Your task to perform on an android device: Open Android settings Image 0: 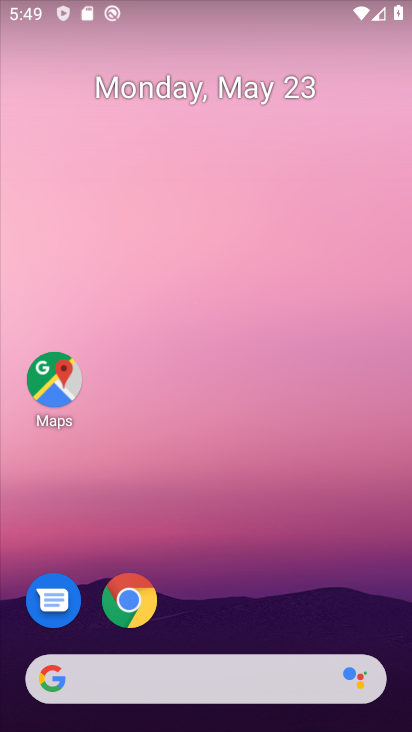
Step 0: drag from (114, 465) to (296, 172)
Your task to perform on an android device: Open Android settings Image 1: 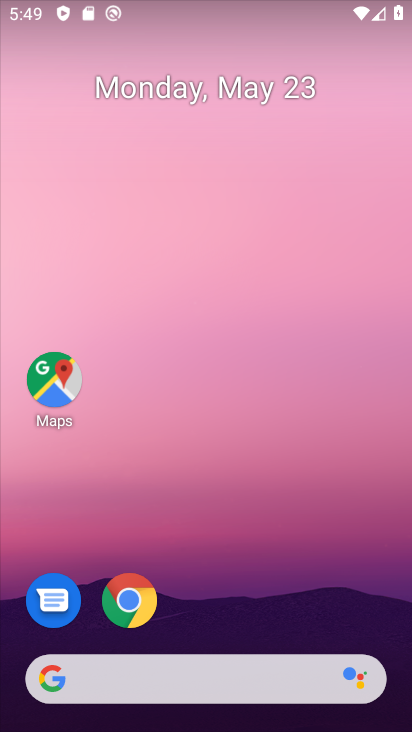
Step 1: drag from (7, 503) to (164, 251)
Your task to perform on an android device: Open Android settings Image 2: 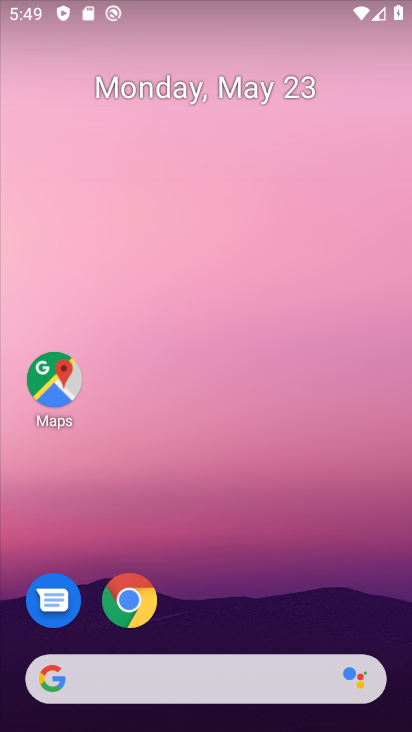
Step 2: drag from (44, 547) to (351, 119)
Your task to perform on an android device: Open Android settings Image 3: 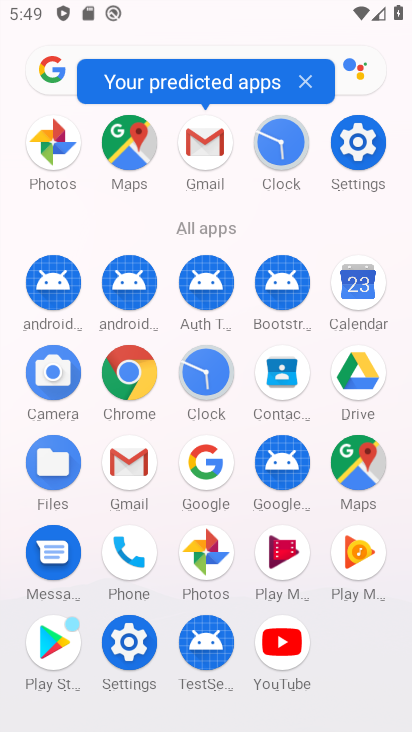
Step 3: click (356, 136)
Your task to perform on an android device: Open Android settings Image 4: 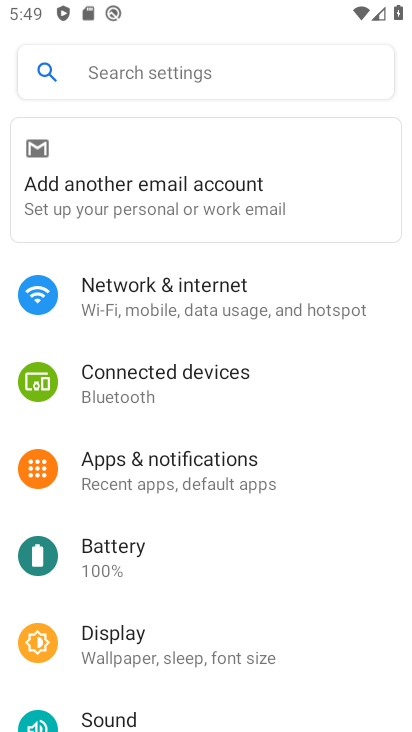
Step 4: drag from (42, 713) to (249, 260)
Your task to perform on an android device: Open Android settings Image 5: 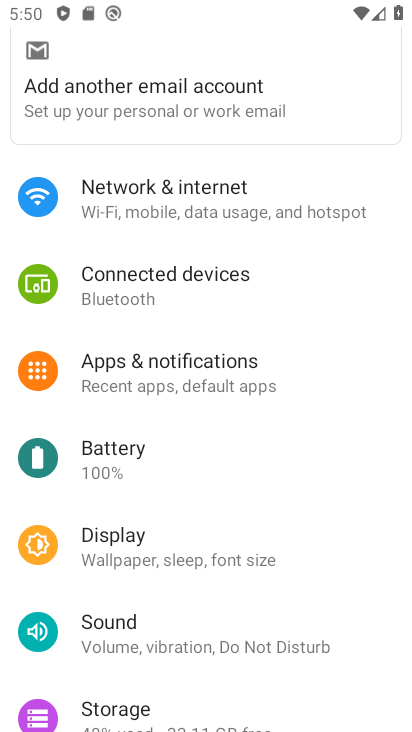
Step 5: drag from (7, 633) to (217, 207)
Your task to perform on an android device: Open Android settings Image 6: 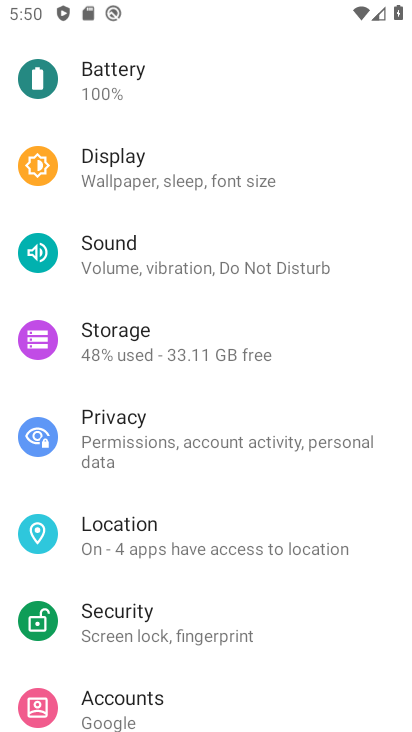
Step 6: drag from (93, 644) to (259, 208)
Your task to perform on an android device: Open Android settings Image 7: 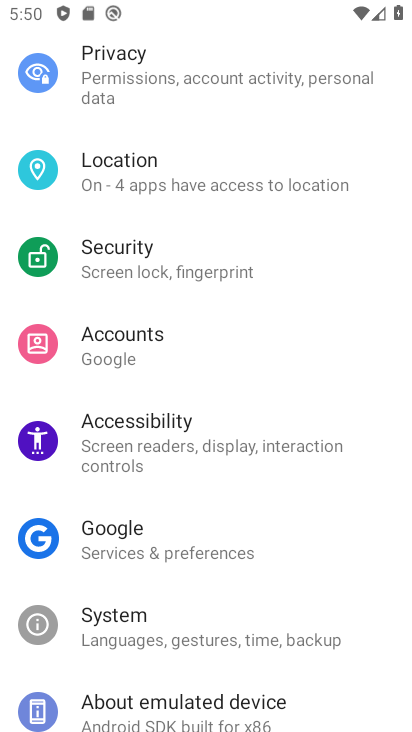
Step 7: drag from (109, 700) to (252, 256)
Your task to perform on an android device: Open Android settings Image 8: 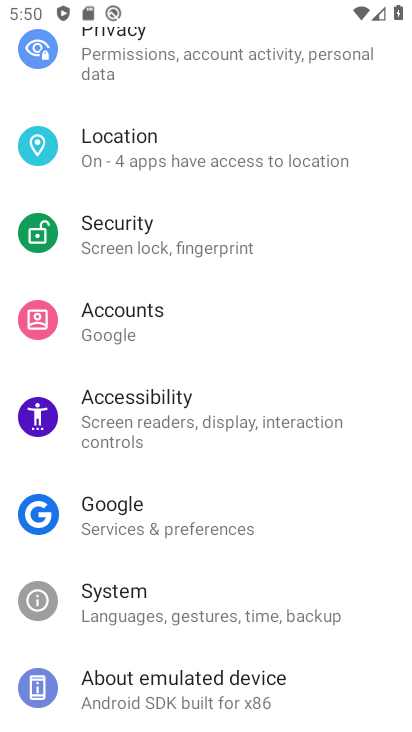
Step 8: click (142, 663)
Your task to perform on an android device: Open Android settings Image 9: 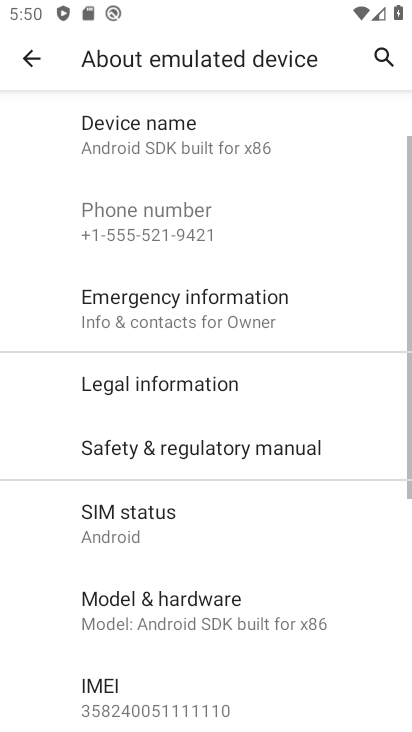
Step 9: drag from (164, 667) to (314, 205)
Your task to perform on an android device: Open Android settings Image 10: 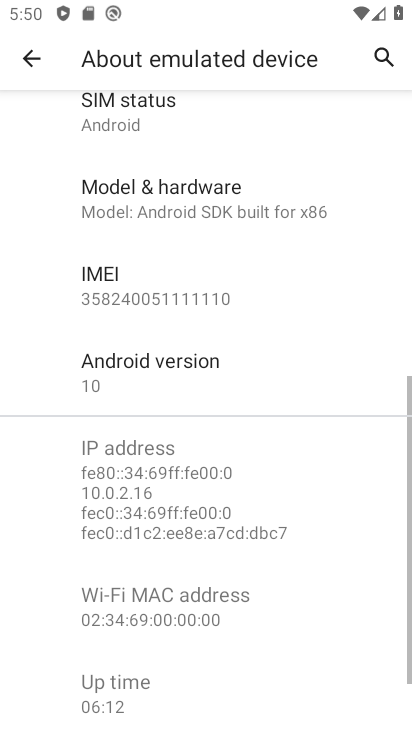
Step 10: click (186, 361)
Your task to perform on an android device: Open Android settings Image 11: 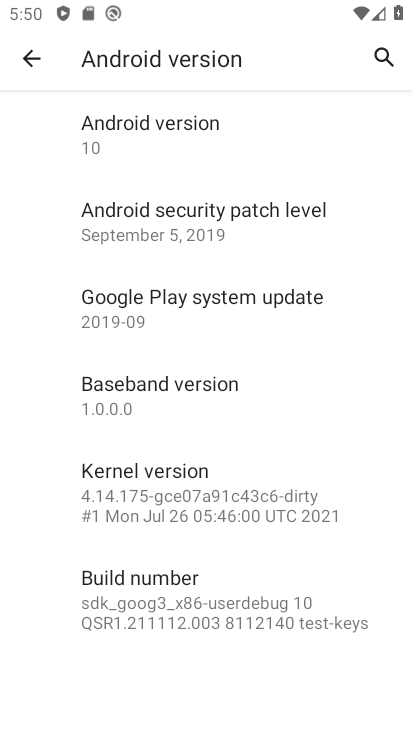
Step 11: task complete